Your task to perform on an android device: delete location history Image 0: 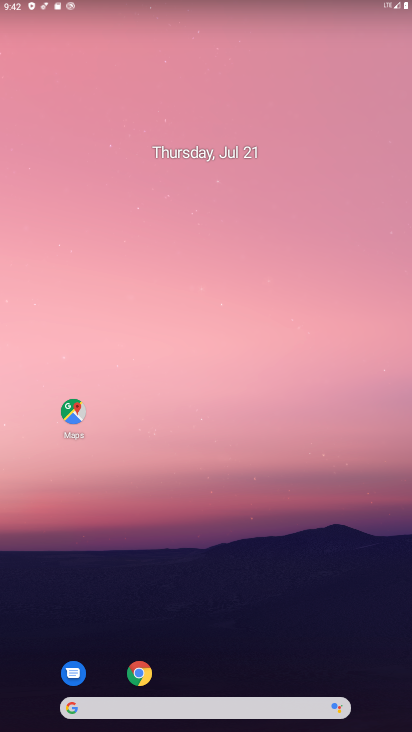
Step 0: drag from (211, 723) to (211, 175)
Your task to perform on an android device: delete location history Image 1: 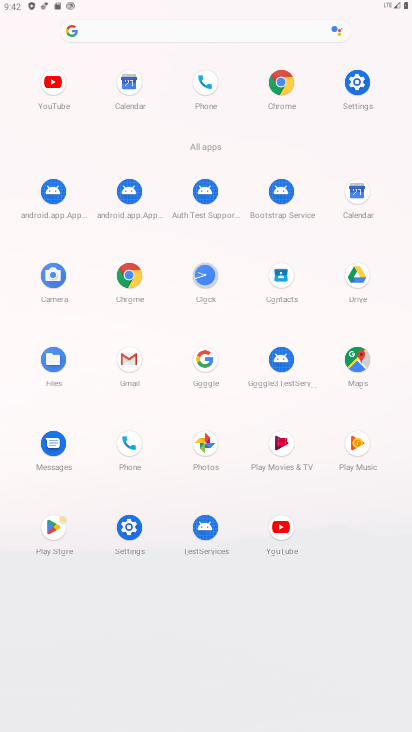
Step 1: click (361, 82)
Your task to perform on an android device: delete location history Image 2: 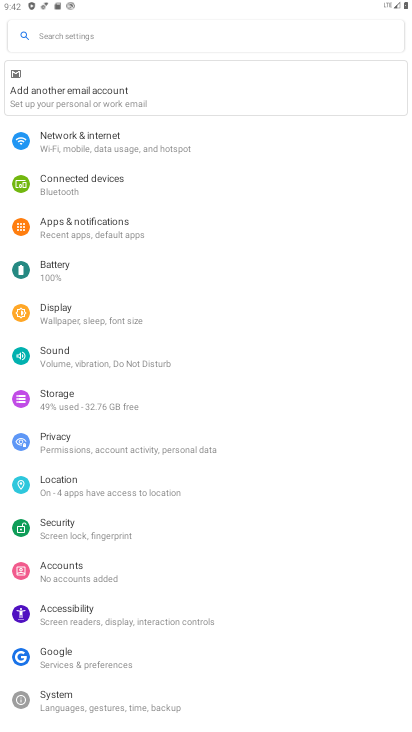
Step 2: click (70, 484)
Your task to perform on an android device: delete location history Image 3: 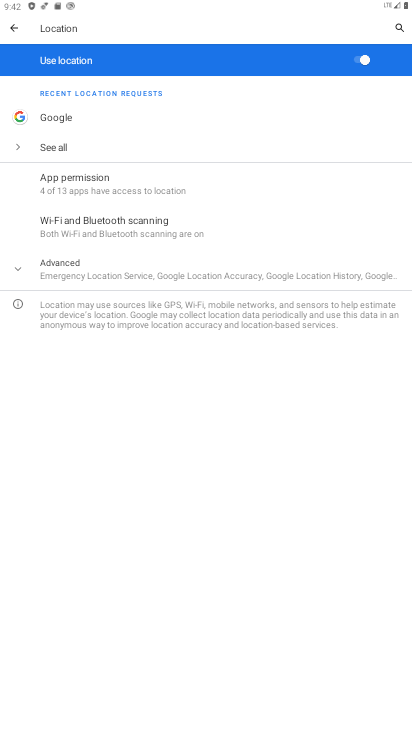
Step 3: click (86, 268)
Your task to perform on an android device: delete location history Image 4: 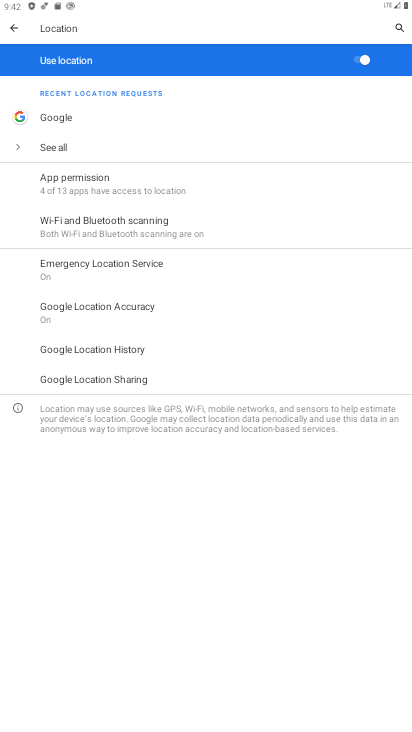
Step 4: click (110, 350)
Your task to perform on an android device: delete location history Image 5: 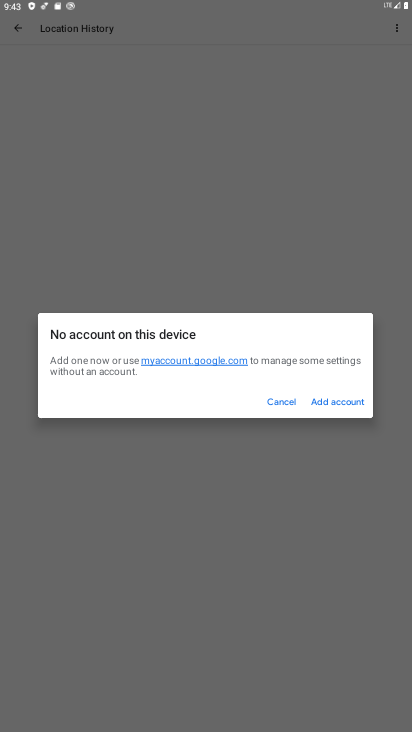
Step 5: click (286, 402)
Your task to perform on an android device: delete location history Image 6: 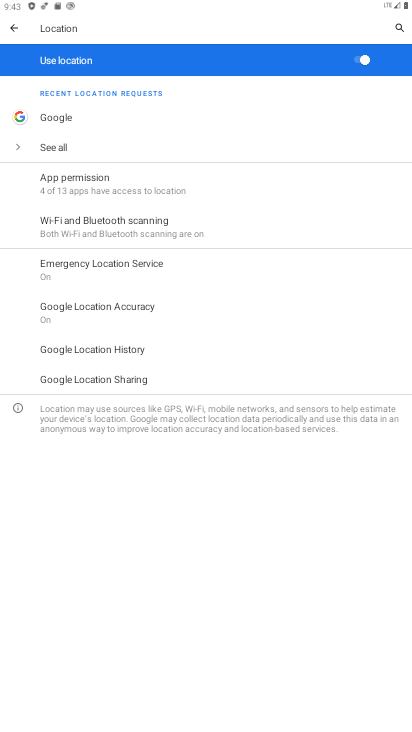
Step 6: task complete